Your task to perform on an android device: Show me popular videos on Youtube Image 0: 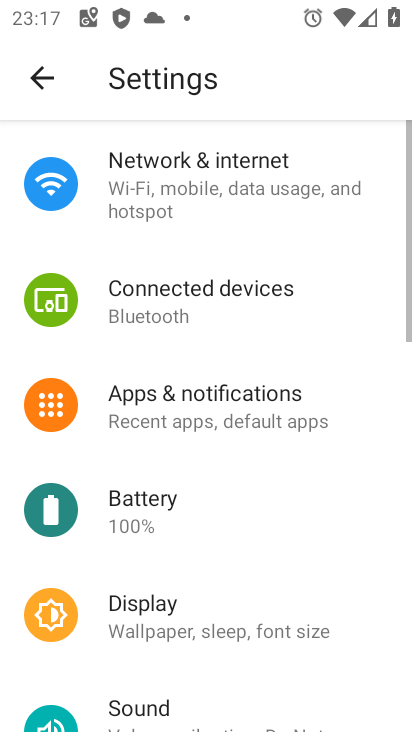
Step 0: press home button
Your task to perform on an android device: Show me popular videos on Youtube Image 1: 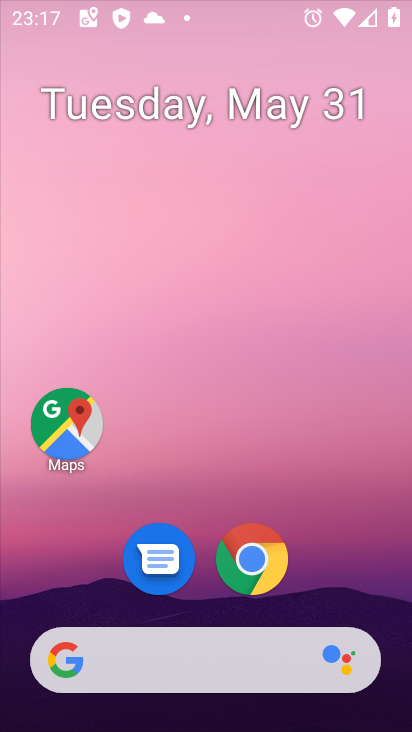
Step 1: drag from (333, 591) to (373, 57)
Your task to perform on an android device: Show me popular videos on Youtube Image 2: 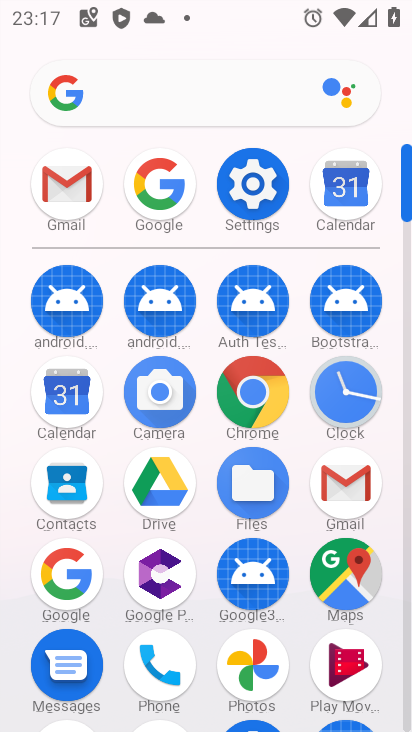
Step 2: drag from (200, 646) to (244, 249)
Your task to perform on an android device: Show me popular videos on Youtube Image 3: 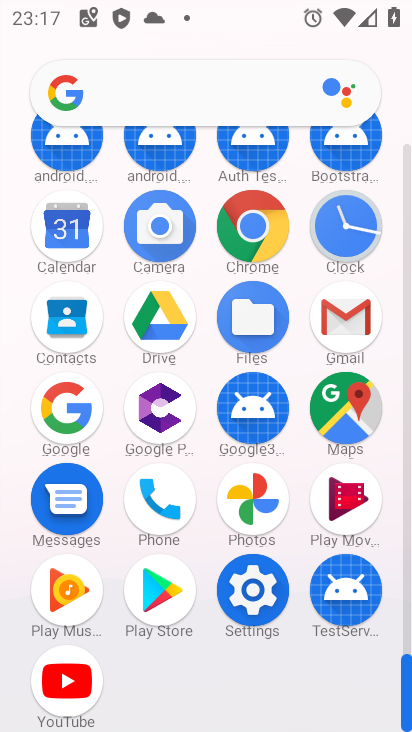
Step 3: click (70, 686)
Your task to perform on an android device: Show me popular videos on Youtube Image 4: 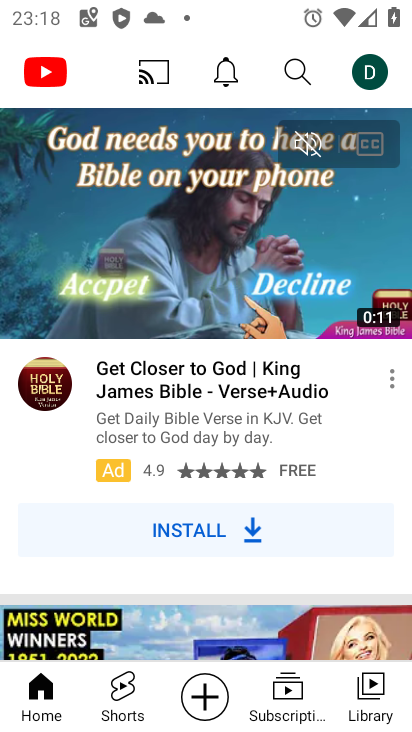
Step 4: task complete